Your task to perform on an android device: toggle notifications settings in the gmail app Image 0: 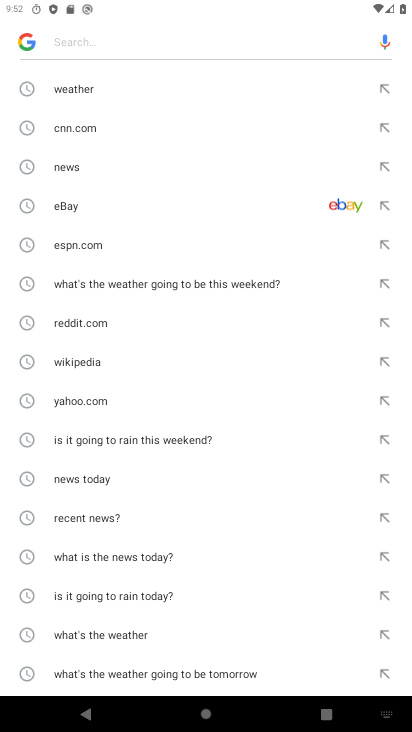
Step 0: press home button
Your task to perform on an android device: toggle notifications settings in the gmail app Image 1: 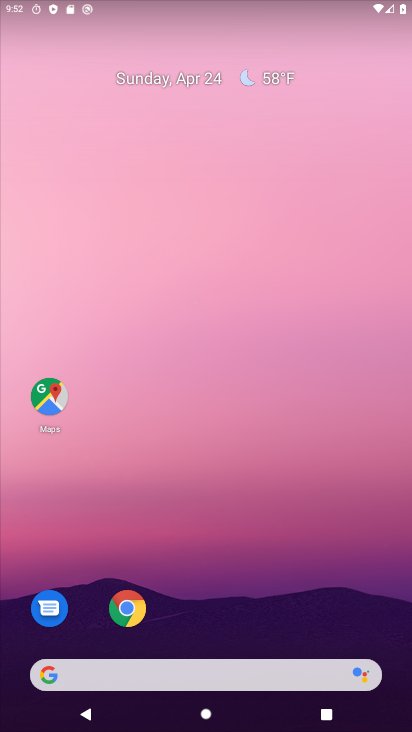
Step 1: drag from (351, 607) to (340, 68)
Your task to perform on an android device: toggle notifications settings in the gmail app Image 2: 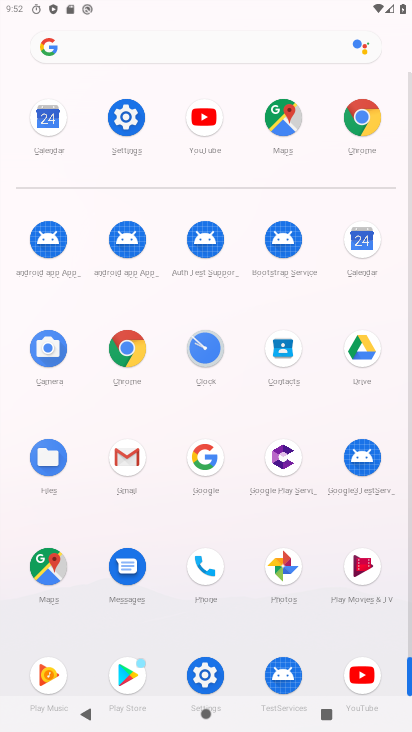
Step 2: click (125, 453)
Your task to perform on an android device: toggle notifications settings in the gmail app Image 3: 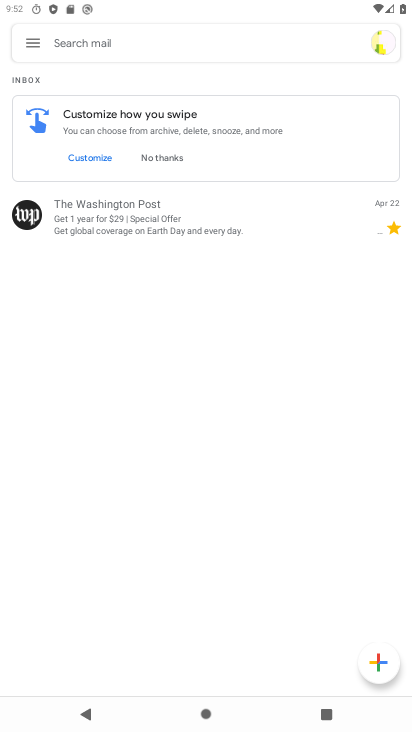
Step 3: click (43, 38)
Your task to perform on an android device: toggle notifications settings in the gmail app Image 4: 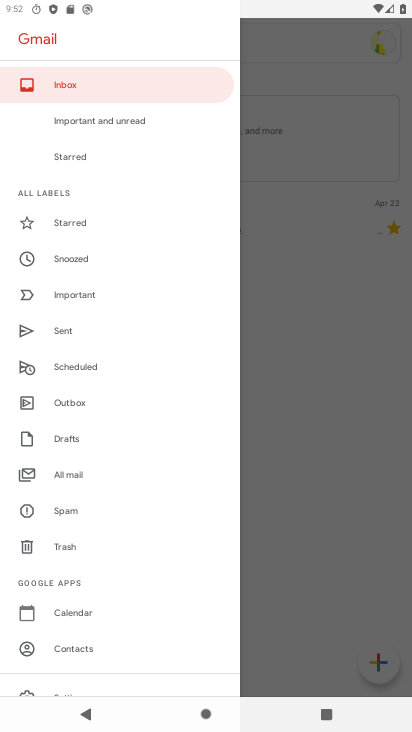
Step 4: drag from (145, 596) to (149, 345)
Your task to perform on an android device: toggle notifications settings in the gmail app Image 5: 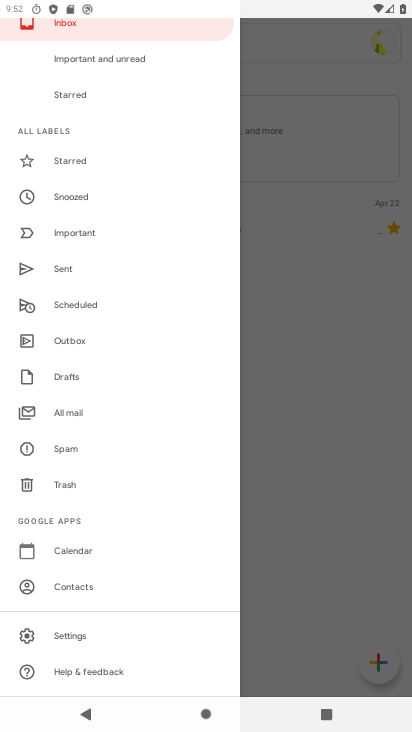
Step 5: click (108, 626)
Your task to perform on an android device: toggle notifications settings in the gmail app Image 6: 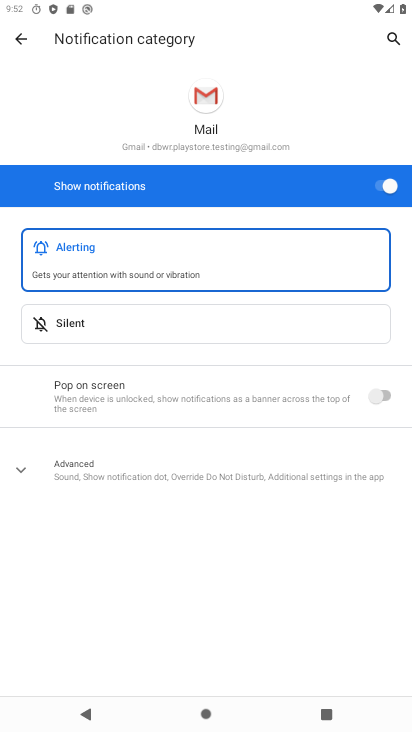
Step 6: click (381, 177)
Your task to perform on an android device: toggle notifications settings in the gmail app Image 7: 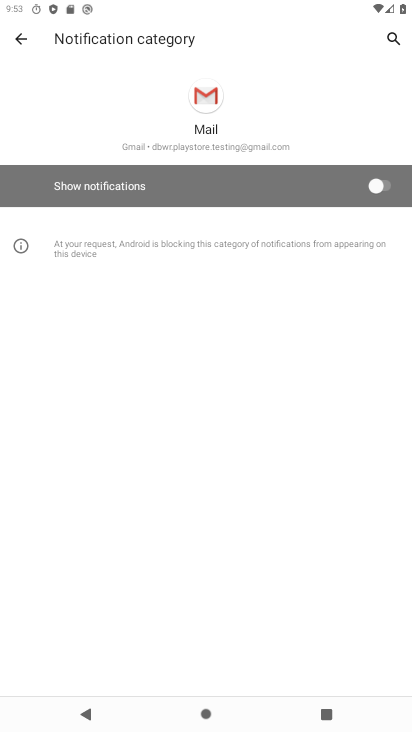
Step 7: task complete